Your task to perform on an android device: toggle show notifications on the lock screen Image 0: 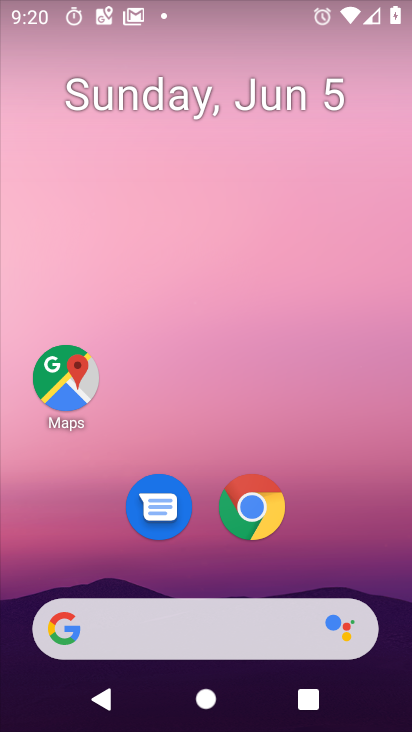
Step 0: drag from (239, 593) to (235, 137)
Your task to perform on an android device: toggle show notifications on the lock screen Image 1: 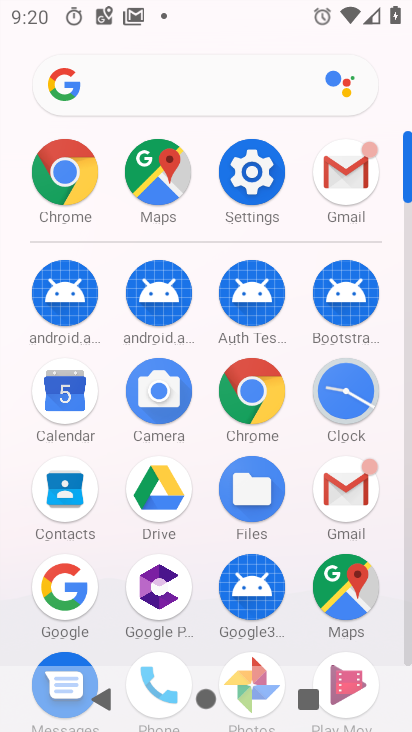
Step 1: click (237, 184)
Your task to perform on an android device: toggle show notifications on the lock screen Image 2: 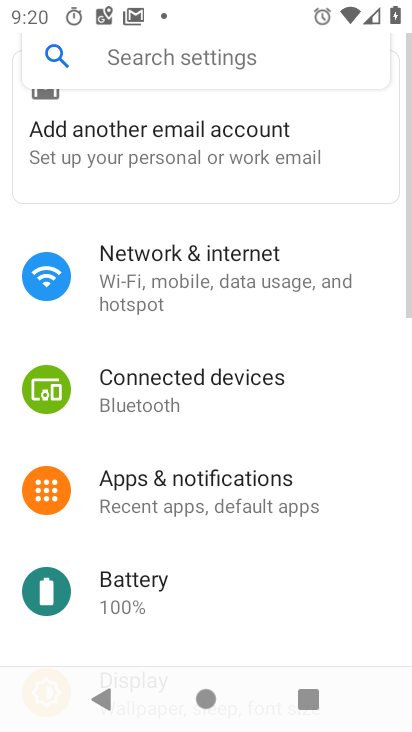
Step 2: click (155, 60)
Your task to perform on an android device: toggle show notifications on the lock screen Image 3: 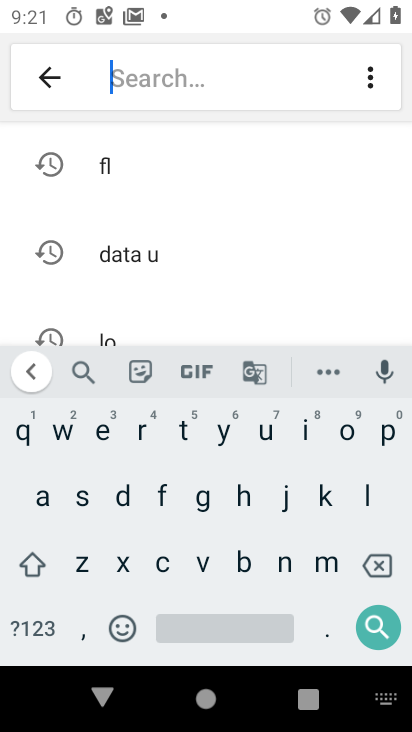
Step 3: click (280, 580)
Your task to perform on an android device: toggle show notifications on the lock screen Image 4: 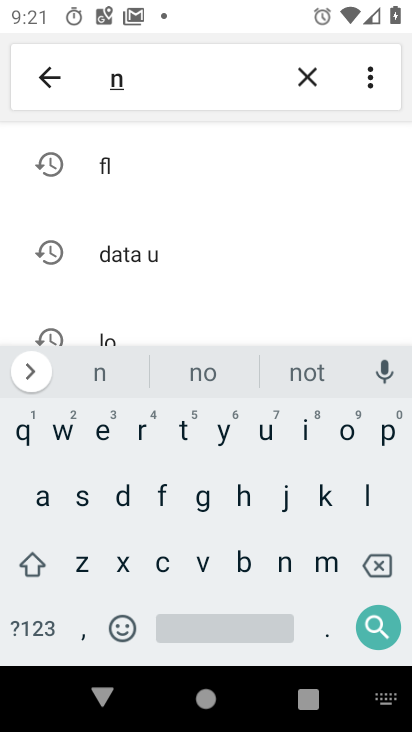
Step 4: click (341, 434)
Your task to perform on an android device: toggle show notifications on the lock screen Image 5: 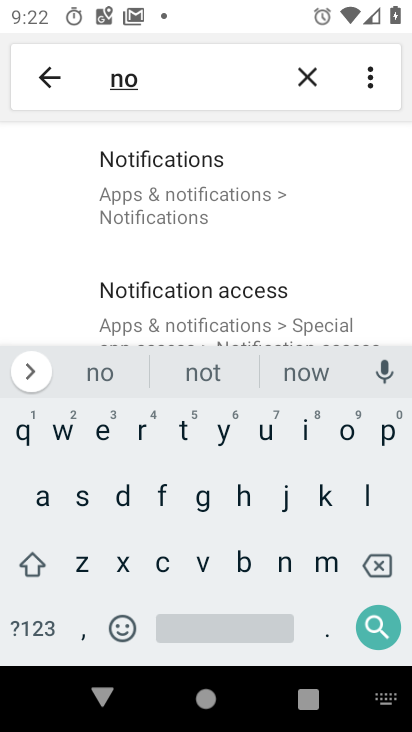
Step 5: click (170, 203)
Your task to perform on an android device: toggle show notifications on the lock screen Image 6: 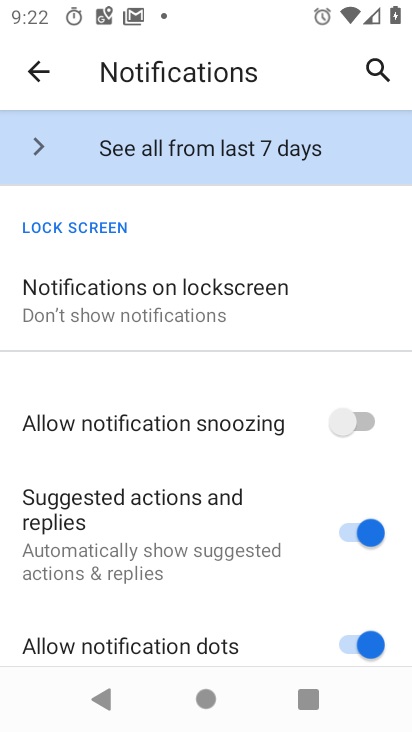
Step 6: click (201, 296)
Your task to perform on an android device: toggle show notifications on the lock screen Image 7: 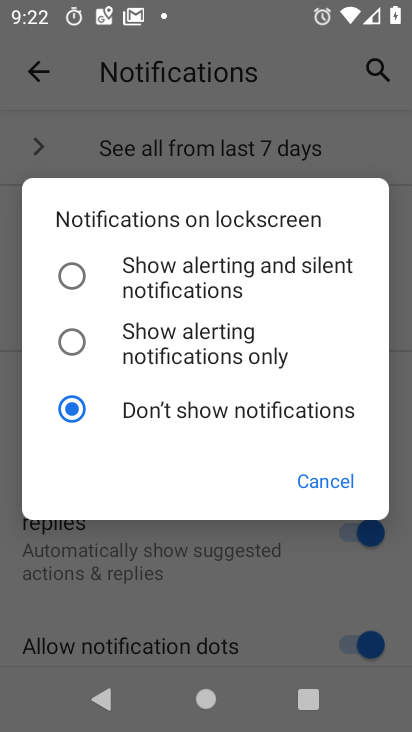
Step 7: task complete